Your task to perform on an android device: open a bookmark in the chrome app Image 0: 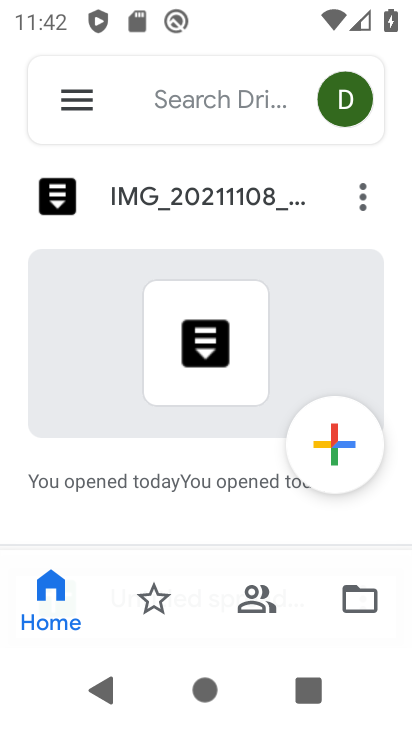
Step 0: press home button
Your task to perform on an android device: open a bookmark in the chrome app Image 1: 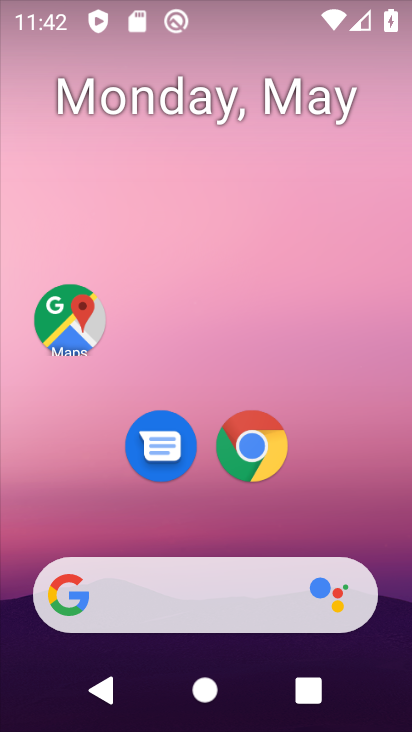
Step 1: click (245, 461)
Your task to perform on an android device: open a bookmark in the chrome app Image 2: 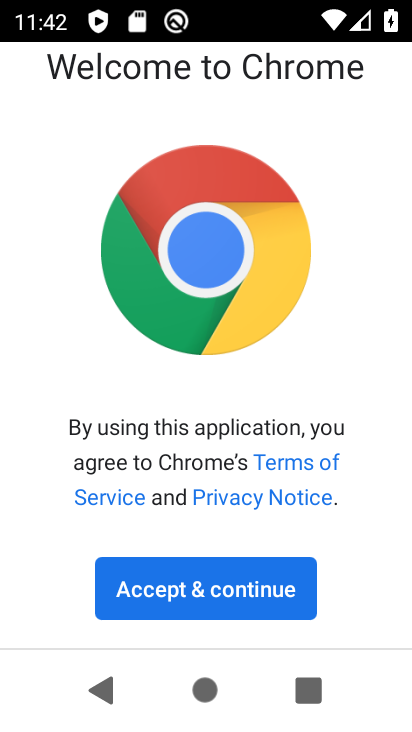
Step 2: click (218, 593)
Your task to perform on an android device: open a bookmark in the chrome app Image 3: 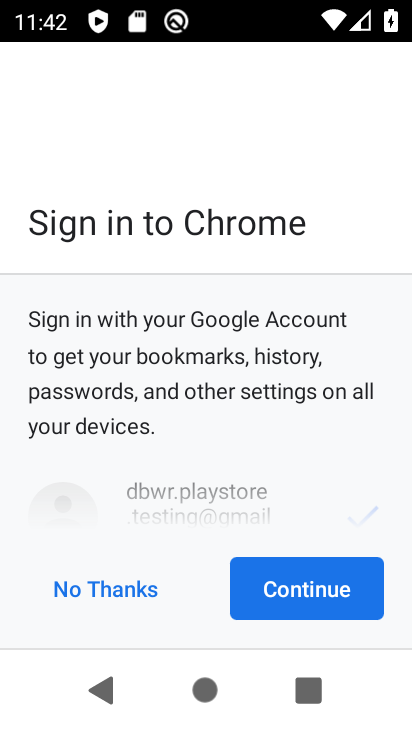
Step 3: click (311, 593)
Your task to perform on an android device: open a bookmark in the chrome app Image 4: 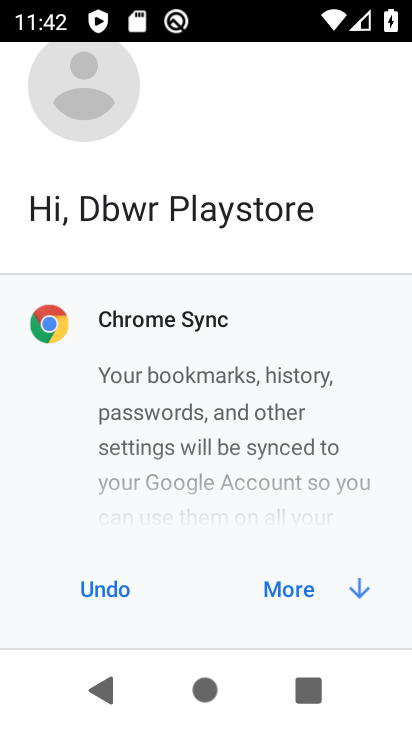
Step 4: click (312, 593)
Your task to perform on an android device: open a bookmark in the chrome app Image 5: 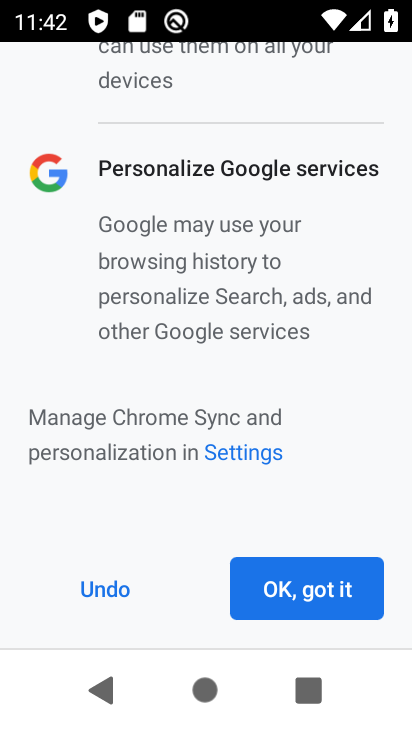
Step 5: click (312, 593)
Your task to perform on an android device: open a bookmark in the chrome app Image 6: 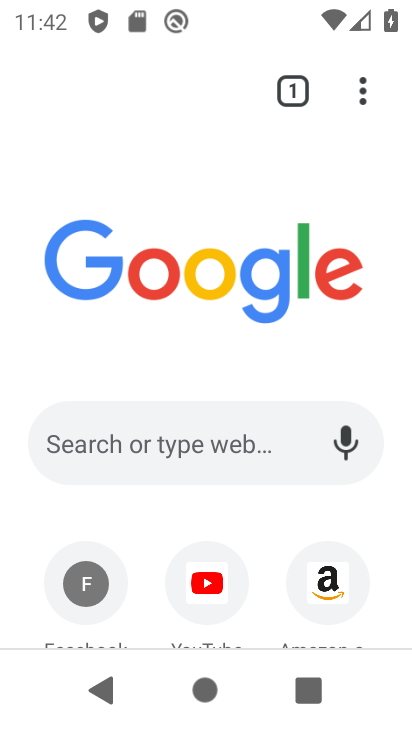
Step 6: task complete